Your task to perform on an android device: turn on wifi Image 0: 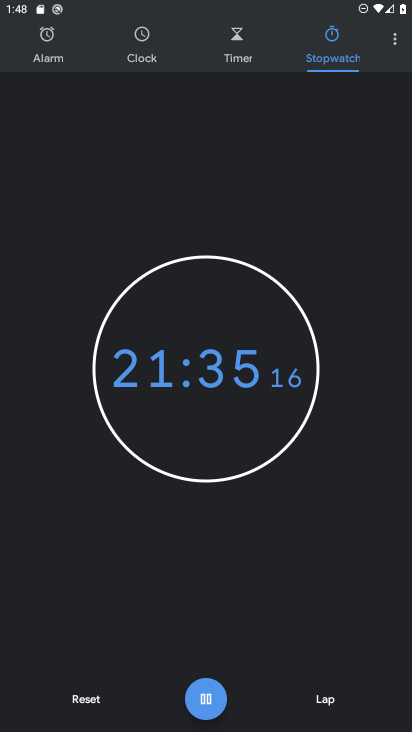
Step 0: drag from (295, 9) to (235, 725)
Your task to perform on an android device: turn on wifi Image 1: 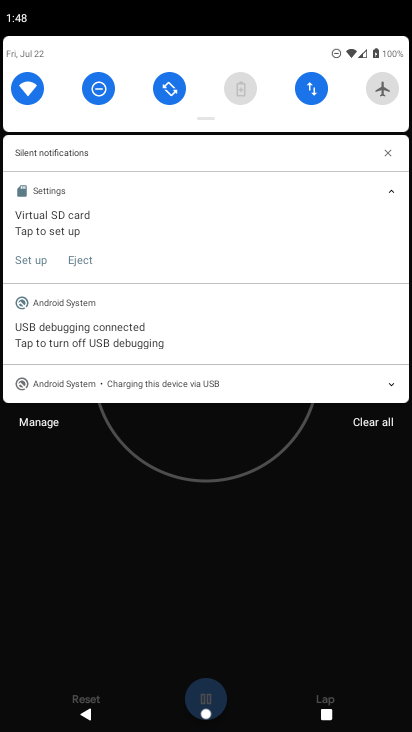
Step 1: click (150, 596)
Your task to perform on an android device: turn on wifi Image 2: 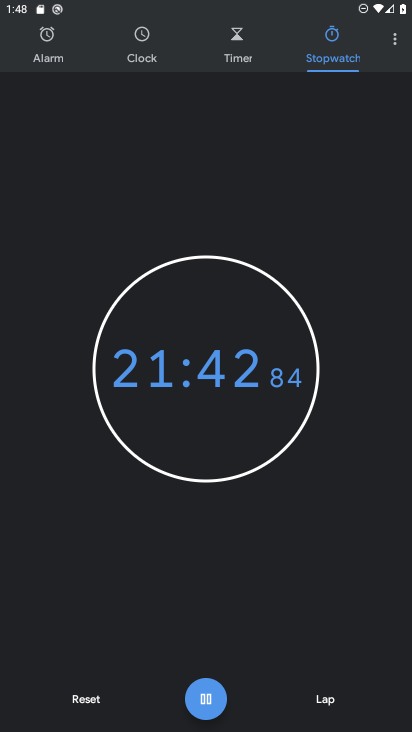
Step 2: task complete